Your task to perform on an android device: change the clock display to show seconds Image 0: 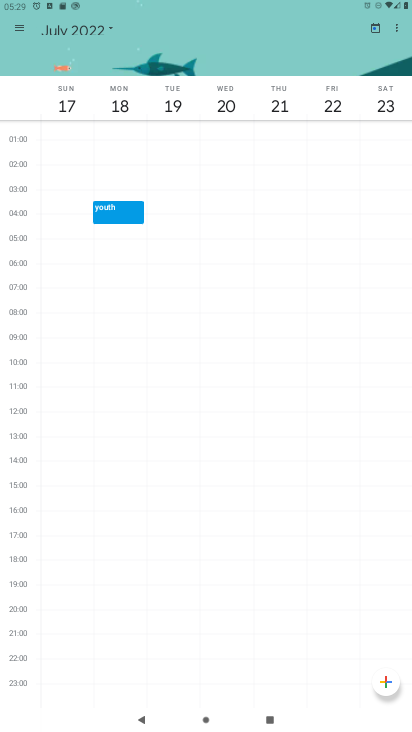
Step 0: press home button
Your task to perform on an android device: change the clock display to show seconds Image 1: 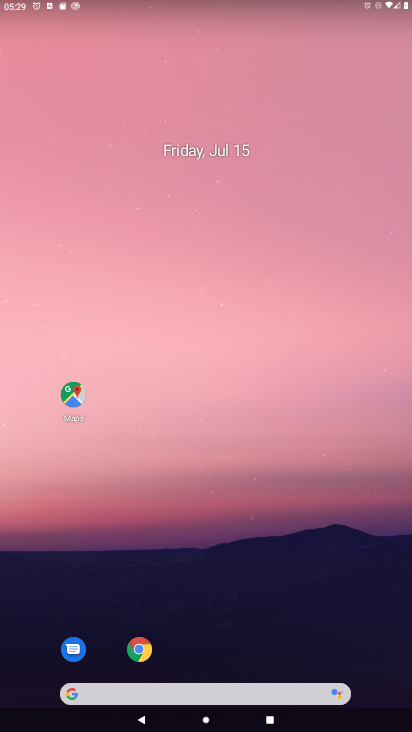
Step 1: drag from (380, 663) to (334, 137)
Your task to perform on an android device: change the clock display to show seconds Image 2: 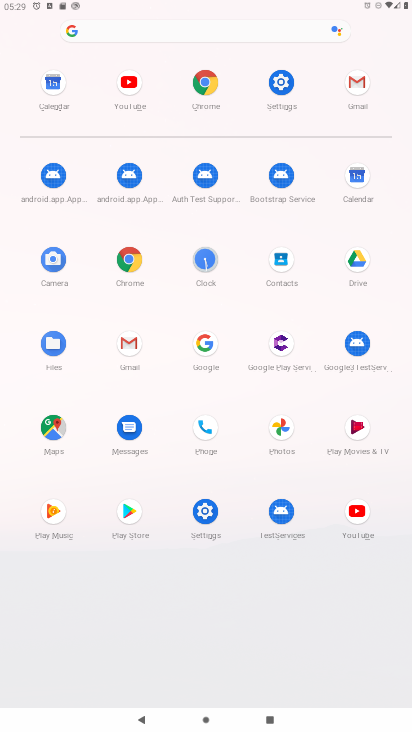
Step 2: click (204, 259)
Your task to perform on an android device: change the clock display to show seconds Image 3: 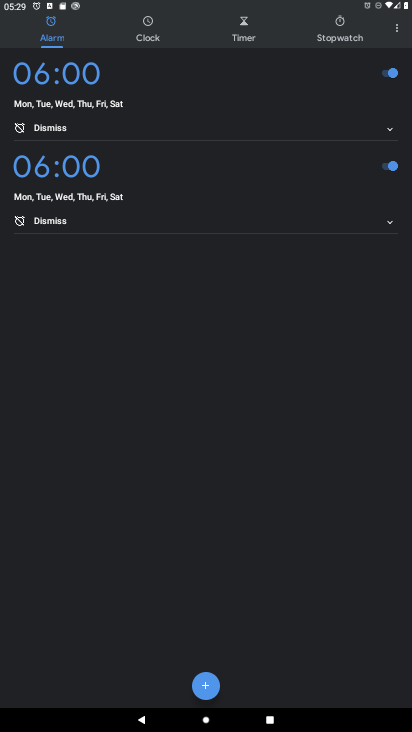
Step 3: click (397, 32)
Your task to perform on an android device: change the clock display to show seconds Image 4: 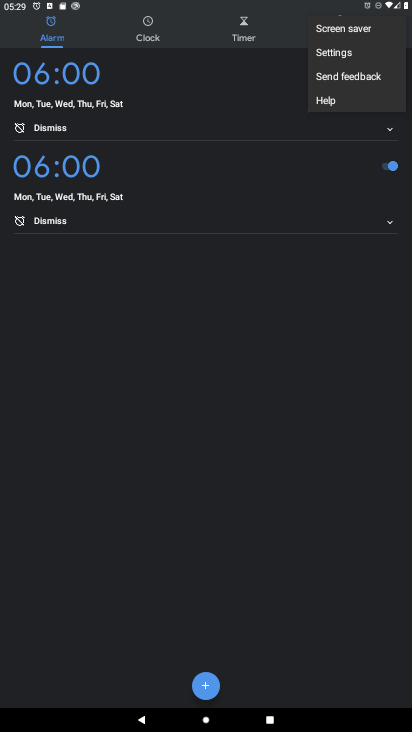
Step 4: click (328, 51)
Your task to perform on an android device: change the clock display to show seconds Image 5: 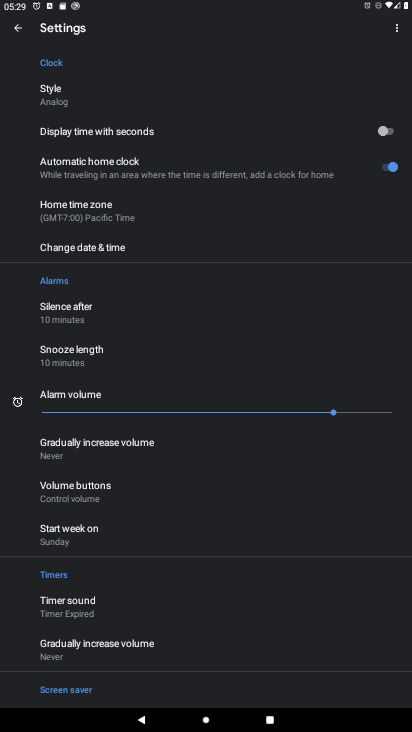
Step 5: click (390, 134)
Your task to perform on an android device: change the clock display to show seconds Image 6: 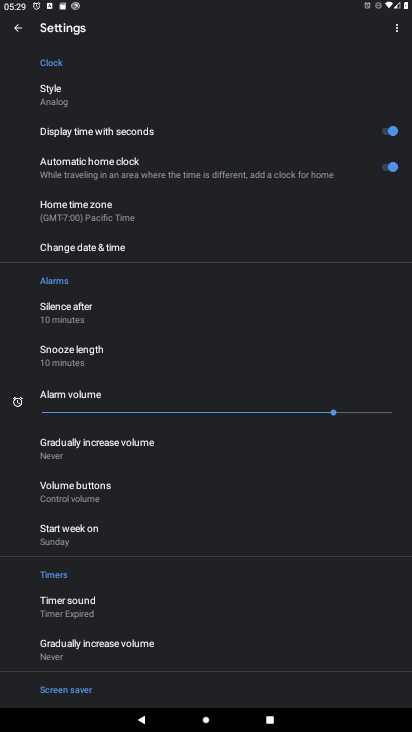
Step 6: task complete